Your task to perform on an android device: Go to Android settings Image 0: 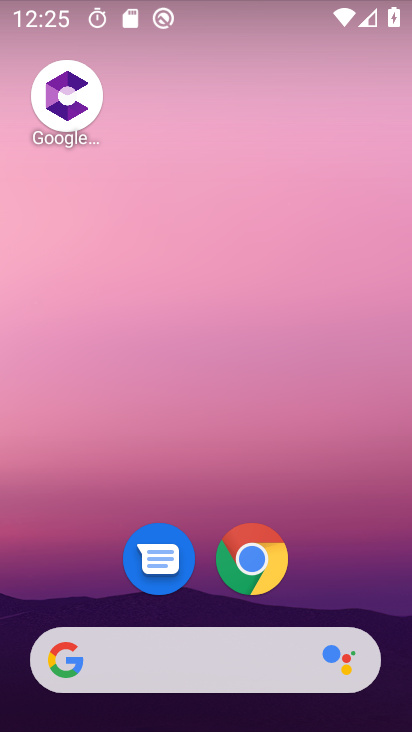
Step 0: drag from (331, 586) to (305, 129)
Your task to perform on an android device: Go to Android settings Image 1: 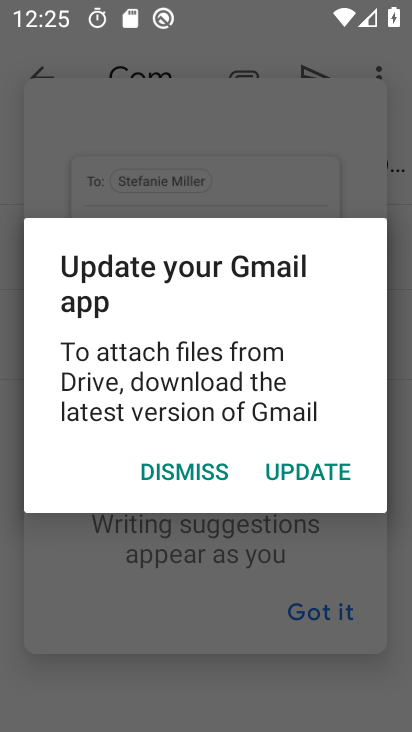
Step 1: press home button
Your task to perform on an android device: Go to Android settings Image 2: 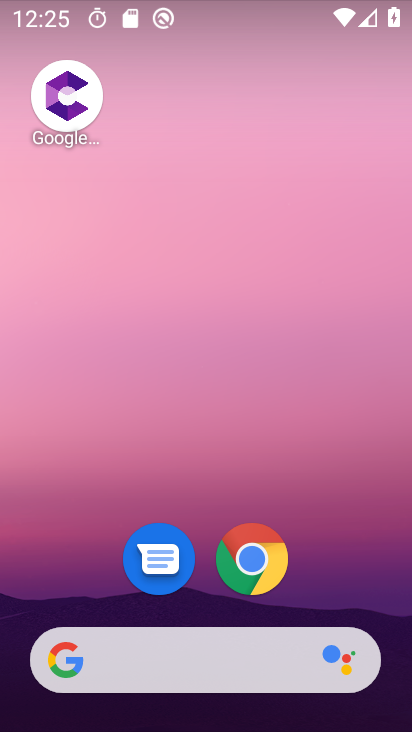
Step 2: drag from (369, 560) to (372, 151)
Your task to perform on an android device: Go to Android settings Image 3: 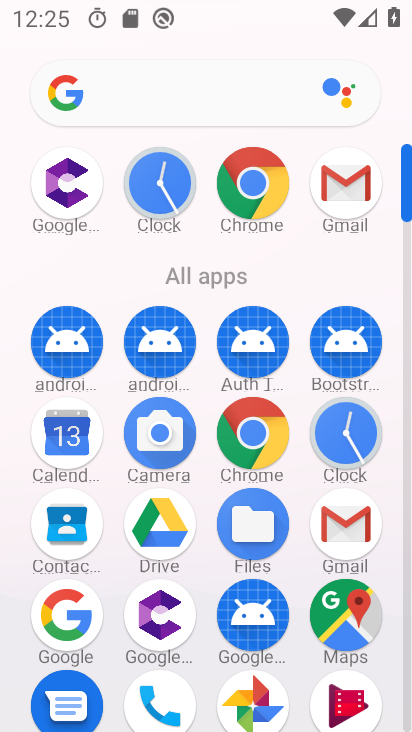
Step 3: drag from (224, 601) to (291, 258)
Your task to perform on an android device: Go to Android settings Image 4: 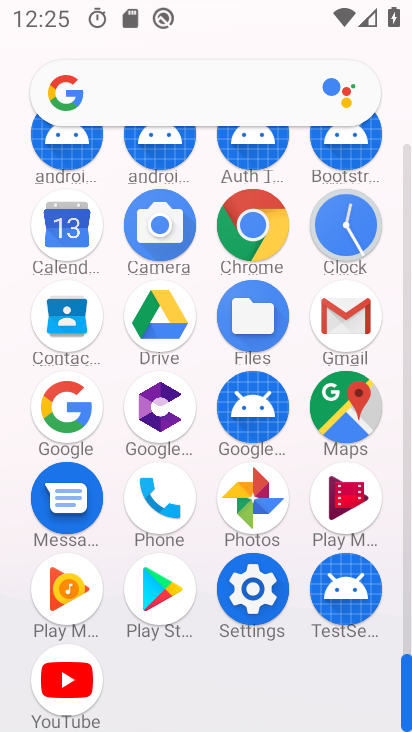
Step 4: click (264, 624)
Your task to perform on an android device: Go to Android settings Image 5: 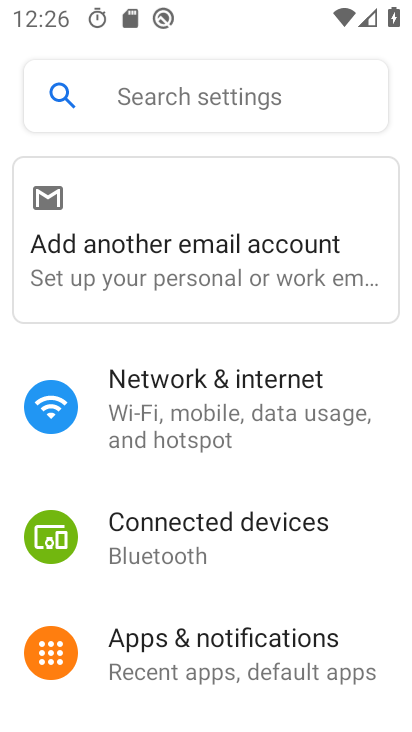
Step 5: task complete